Your task to perform on an android device: Go to location settings Image 0: 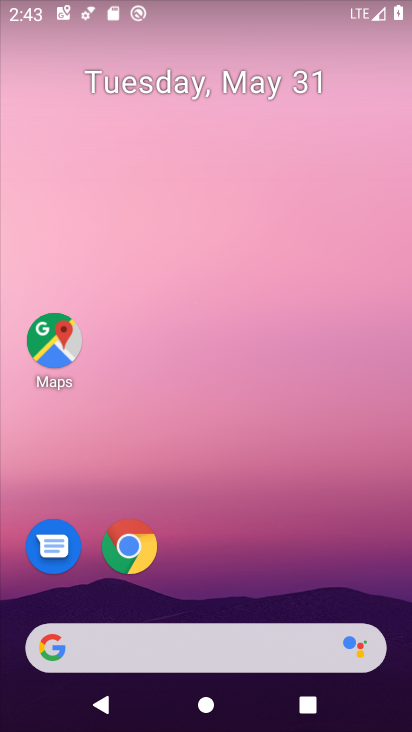
Step 0: drag from (295, 518) to (196, 26)
Your task to perform on an android device: Go to location settings Image 1: 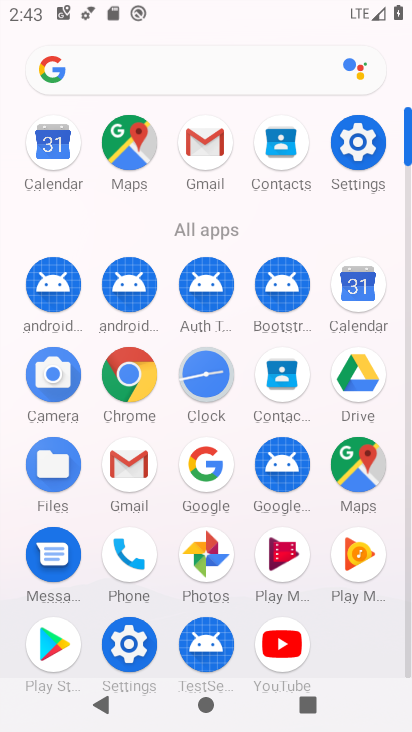
Step 1: click (349, 153)
Your task to perform on an android device: Go to location settings Image 2: 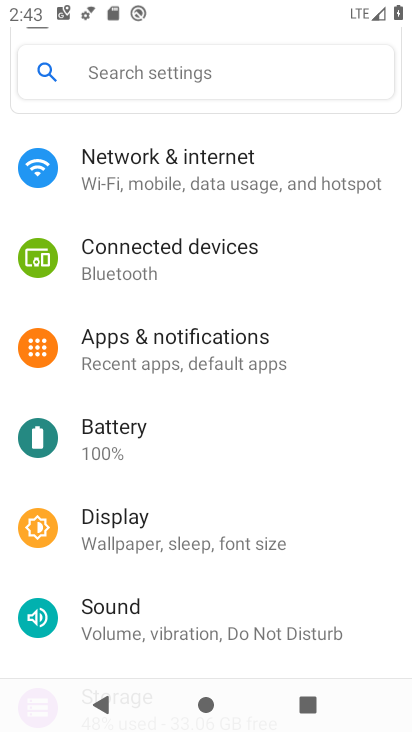
Step 2: drag from (210, 593) to (189, 153)
Your task to perform on an android device: Go to location settings Image 3: 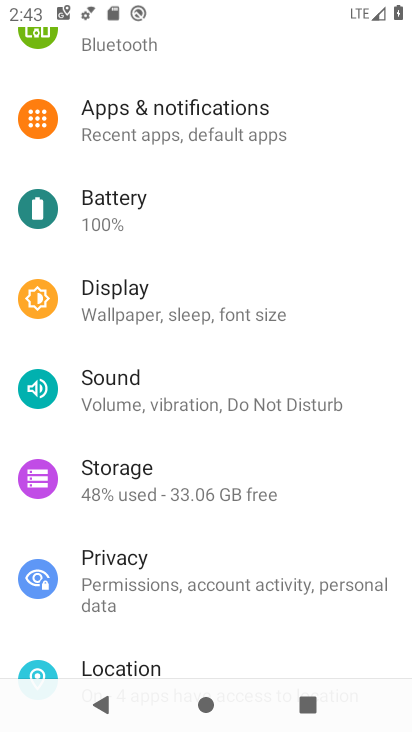
Step 3: click (243, 662)
Your task to perform on an android device: Go to location settings Image 4: 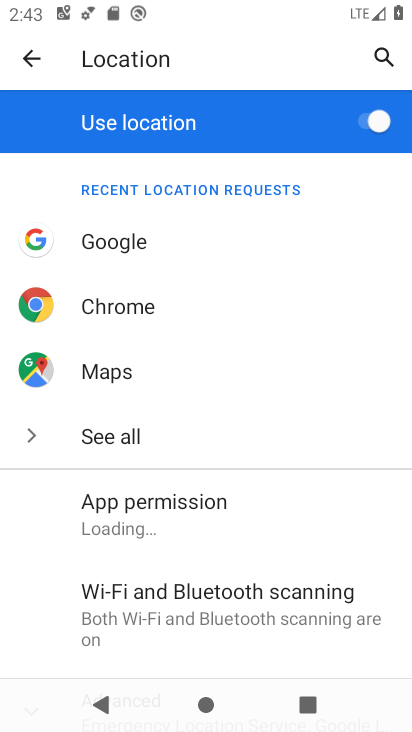
Step 4: task complete